Your task to perform on an android device: Open battery settings Image 0: 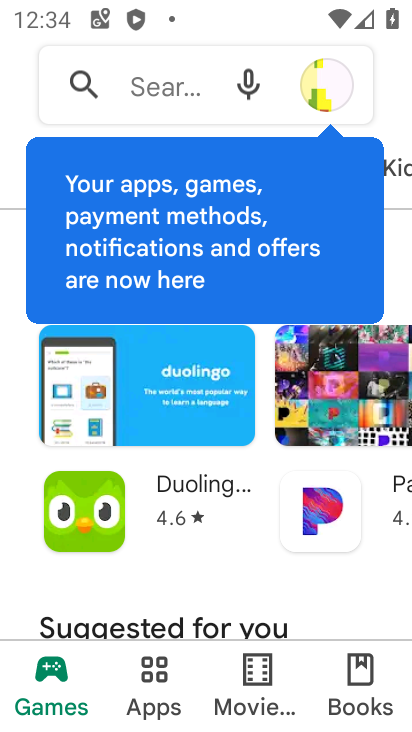
Step 0: press home button
Your task to perform on an android device: Open battery settings Image 1: 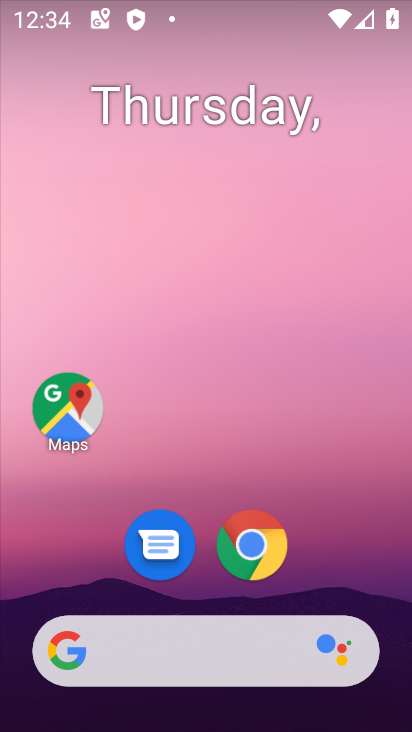
Step 1: drag from (207, 600) to (215, 266)
Your task to perform on an android device: Open battery settings Image 2: 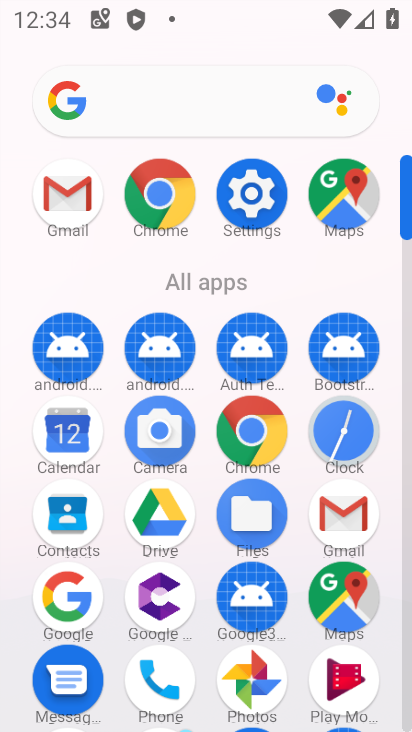
Step 2: click (234, 216)
Your task to perform on an android device: Open battery settings Image 3: 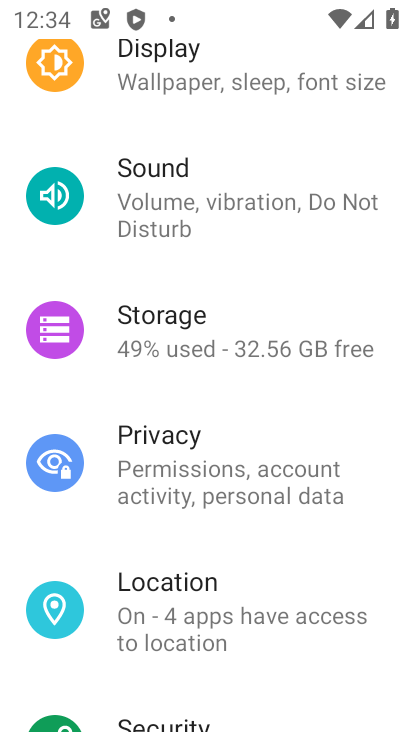
Step 3: drag from (176, 597) to (207, 382)
Your task to perform on an android device: Open battery settings Image 4: 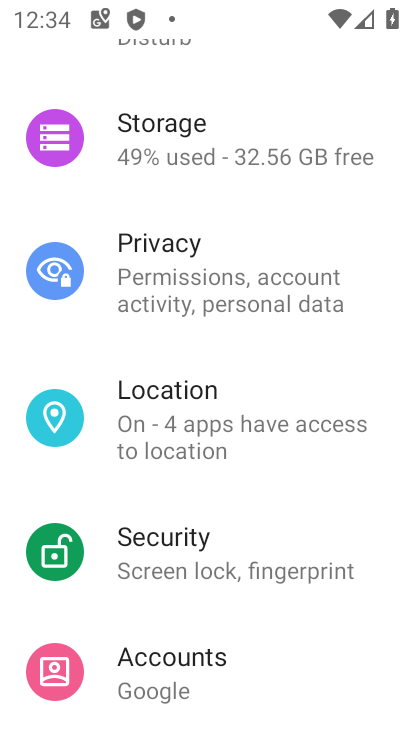
Step 4: drag from (237, 602) to (237, 321)
Your task to perform on an android device: Open battery settings Image 5: 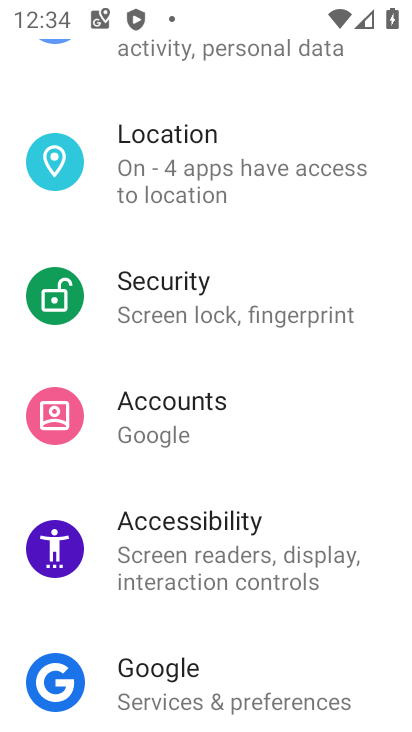
Step 5: drag from (234, 613) to (247, 307)
Your task to perform on an android device: Open battery settings Image 6: 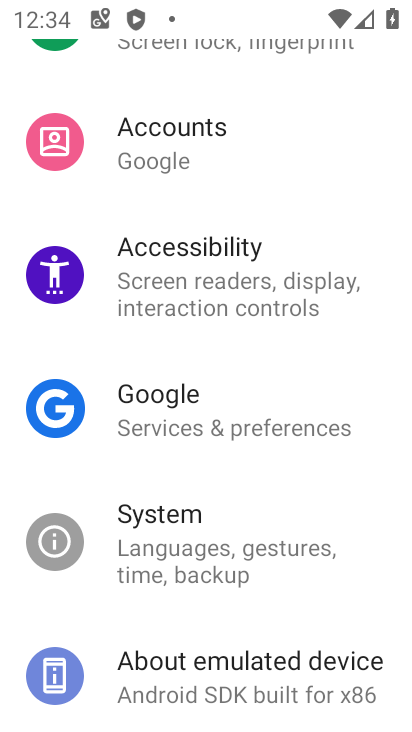
Step 6: drag from (260, 536) to (245, 716)
Your task to perform on an android device: Open battery settings Image 7: 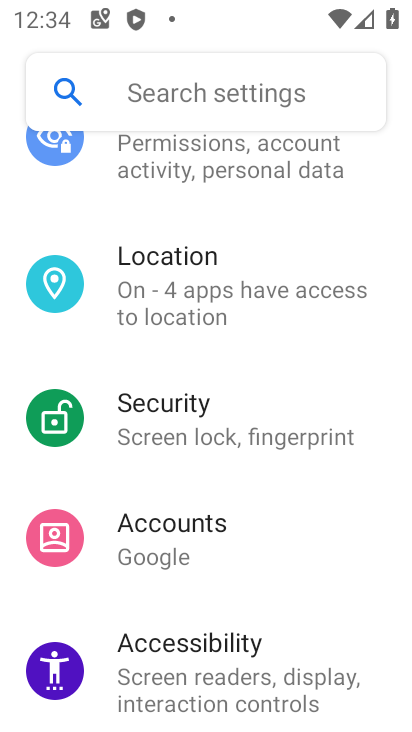
Step 7: drag from (232, 457) to (221, 704)
Your task to perform on an android device: Open battery settings Image 8: 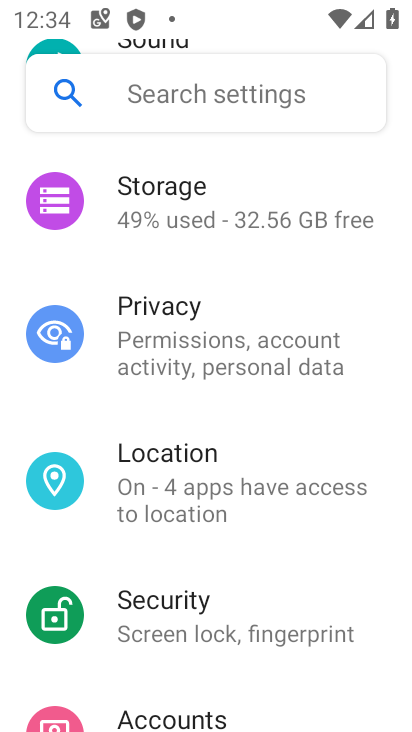
Step 8: drag from (236, 362) to (232, 673)
Your task to perform on an android device: Open battery settings Image 9: 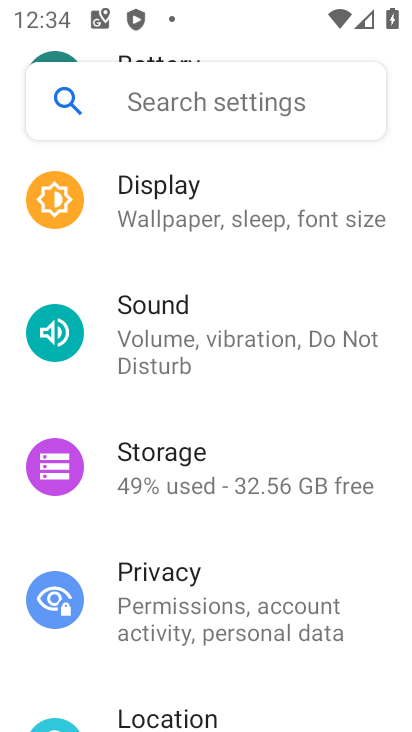
Step 9: drag from (206, 373) to (208, 633)
Your task to perform on an android device: Open battery settings Image 10: 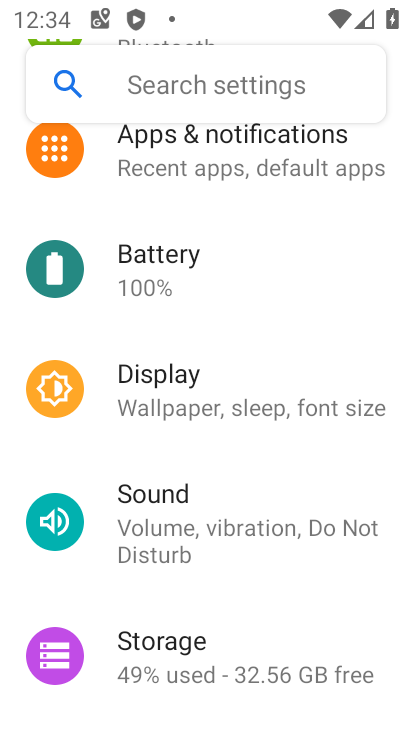
Step 10: click (181, 323)
Your task to perform on an android device: Open battery settings Image 11: 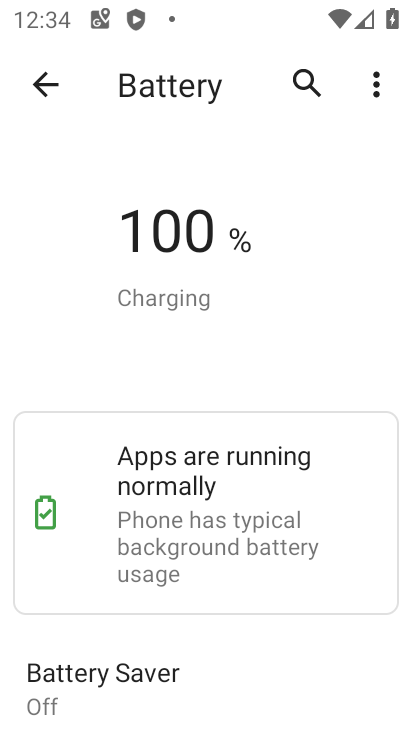
Step 11: task complete